Your task to perform on an android device: open app "Google Chrome" Image 0: 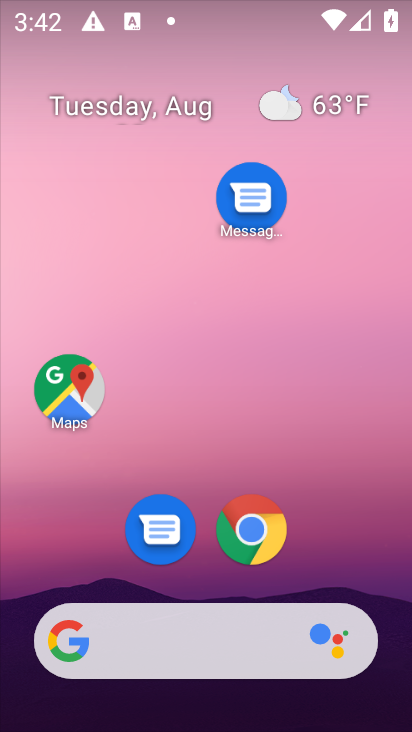
Step 0: drag from (310, 437) to (222, 2)
Your task to perform on an android device: open app "Google Chrome" Image 1: 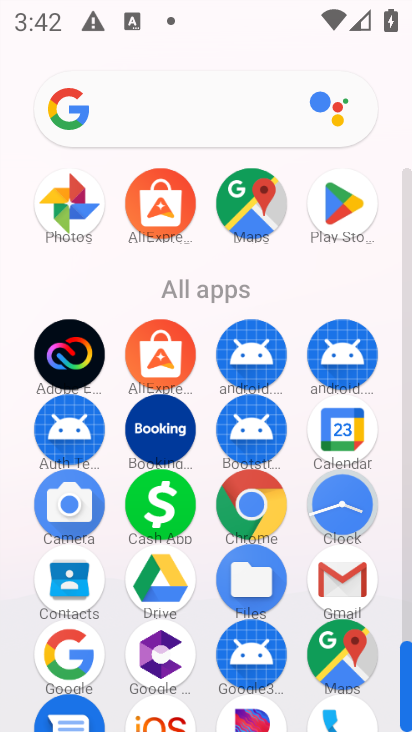
Step 1: click (339, 200)
Your task to perform on an android device: open app "Google Chrome" Image 2: 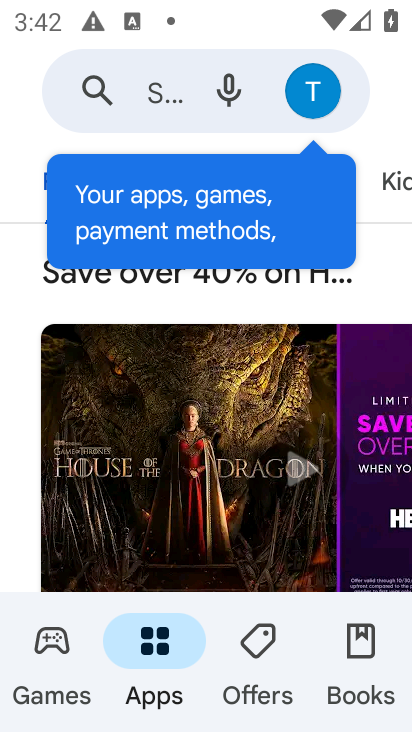
Step 2: click (137, 88)
Your task to perform on an android device: open app "Google Chrome" Image 3: 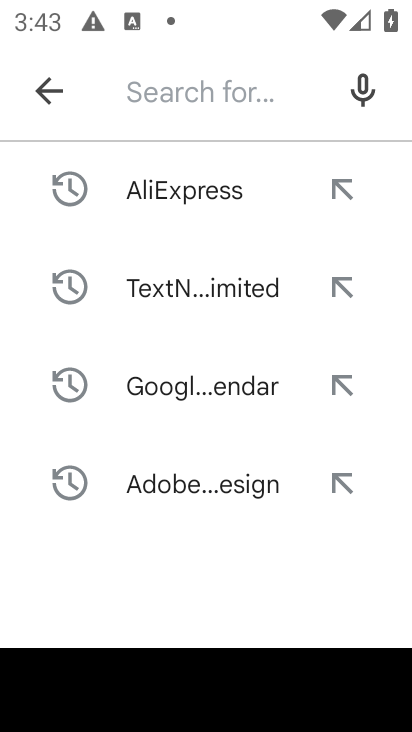
Step 3: type "Google Chrome"
Your task to perform on an android device: open app "Google Chrome" Image 4: 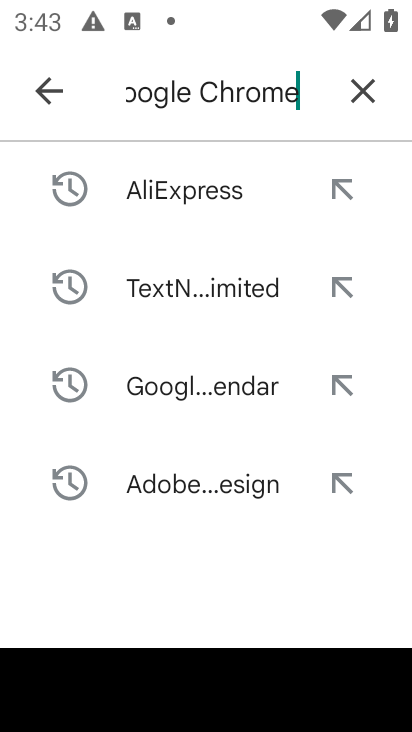
Step 4: press enter
Your task to perform on an android device: open app "Google Chrome" Image 5: 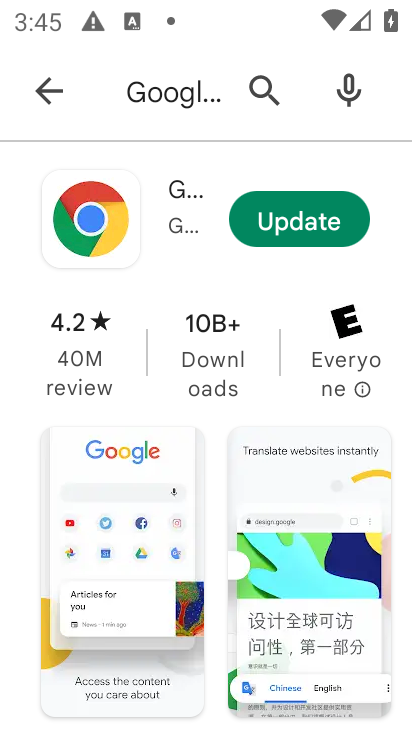
Step 5: click (310, 218)
Your task to perform on an android device: open app "Google Chrome" Image 6: 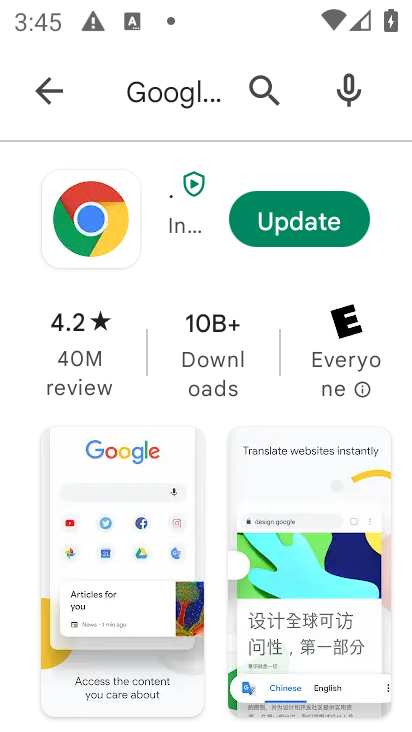
Step 6: click (320, 218)
Your task to perform on an android device: open app "Google Chrome" Image 7: 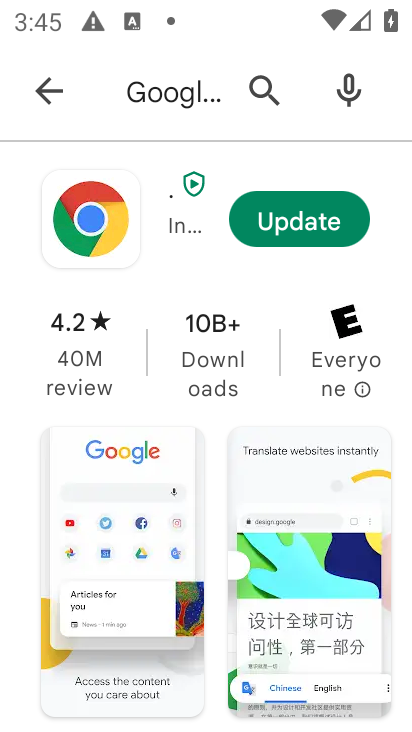
Step 7: click (274, 200)
Your task to perform on an android device: open app "Google Chrome" Image 8: 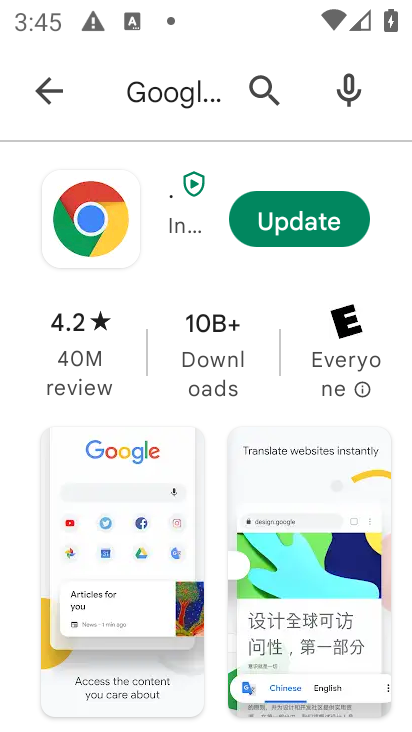
Step 8: click (242, 205)
Your task to perform on an android device: open app "Google Chrome" Image 9: 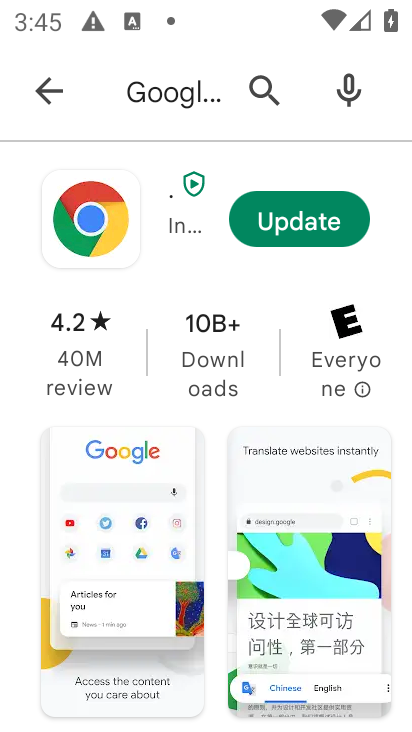
Step 9: click (303, 221)
Your task to perform on an android device: open app "Google Chrome" Image 10: 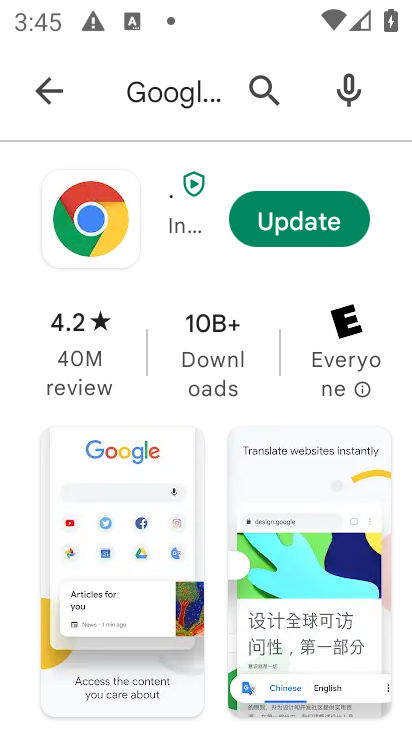
Step 10: task complete